Your task to perform on an android device: Open CNN.com Image 0: 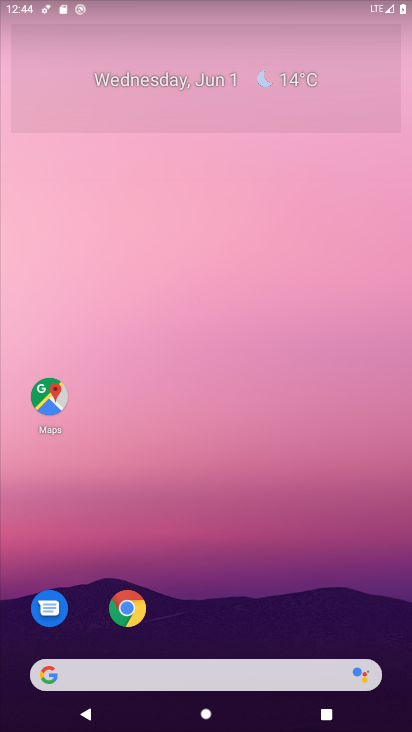
Step 0: click (127, 608)
Your task to perform on an android device: Open CNN.com Image 1: 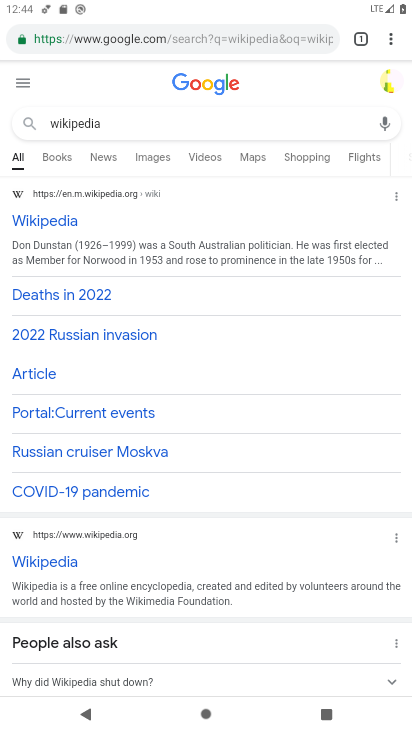
Step 1: click (205, 41)
Your task to perform on an android device: Open CNN.com Image 2: 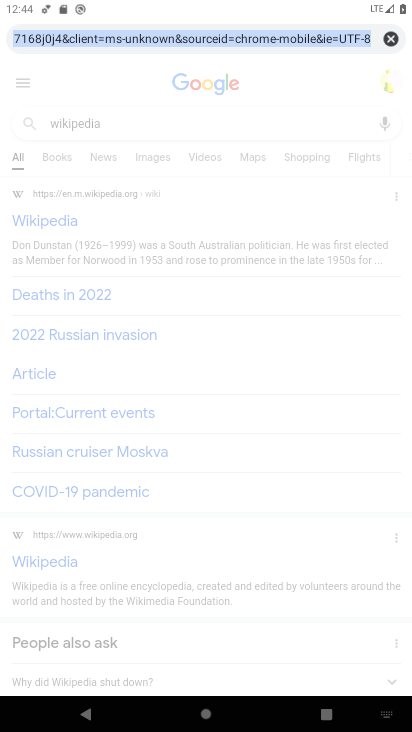
Step 2: click (205, 41)
Your task to perform on an android device: Open CNN.com Image 3: 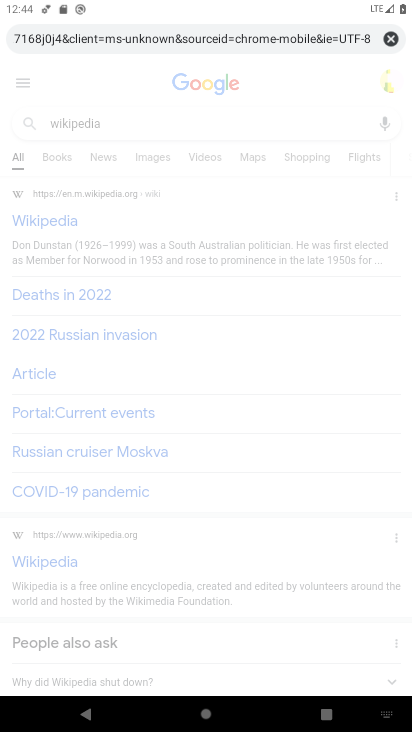
Step 3: type "CNN.com"
Your task to perform on an android device: Open CNN.com Image 4: 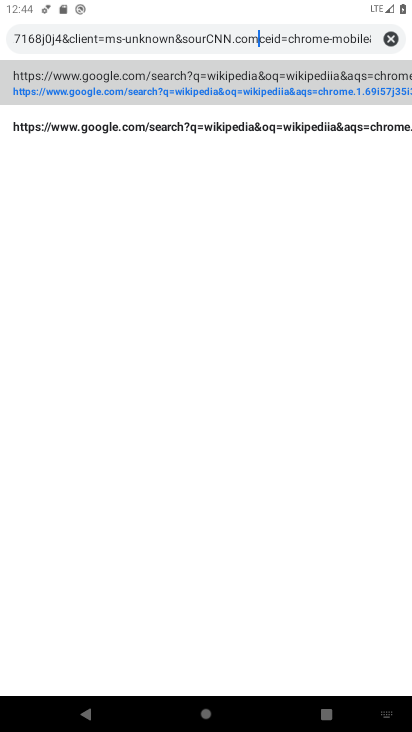
Step 4: click (207, 37)
Your task to perform on an android device: Open CNN.com Image 5: 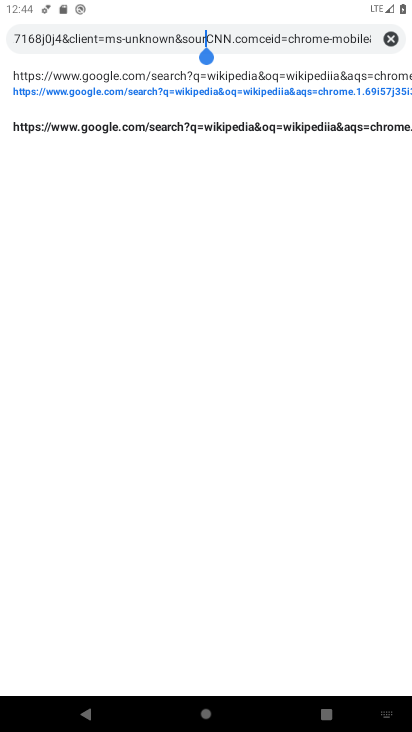
Step 5: click (391, 34)
Your task to perform on an android device: Open CNN.com Image 6: 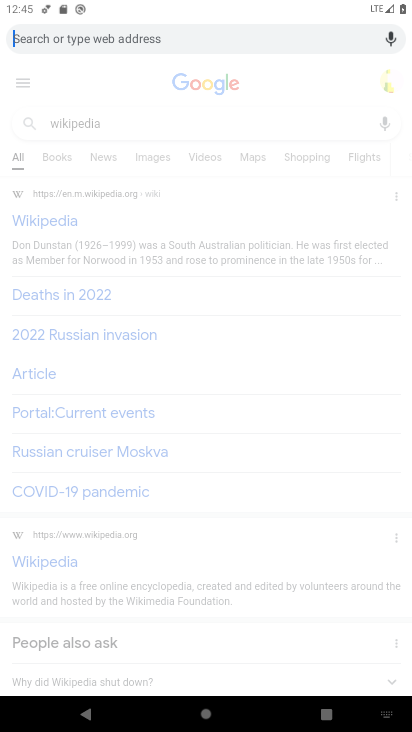
Step 6: type "CNN.com"
Your task to perform on an android device: Open CNN.com Image 7: 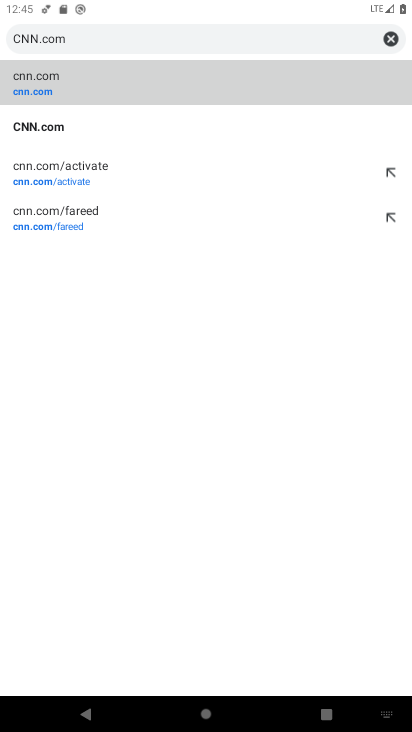
Step 7: click (54, 129)
Your task to perform on an android device: Open CNN.com Image 8: 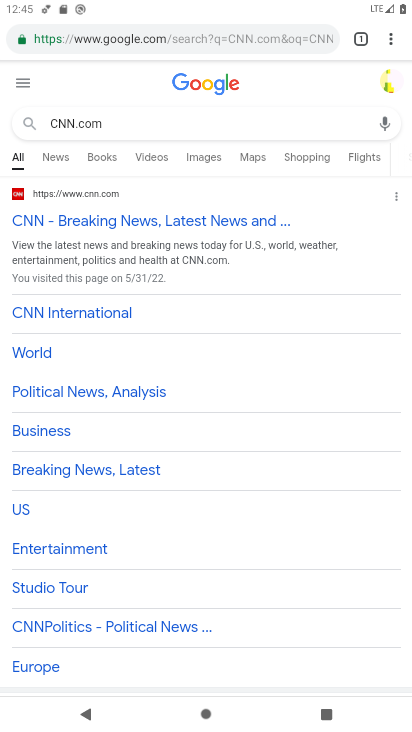
Step 8: task complete